Your task to perform on an android device: delete a single message in the gmail app Image 0: 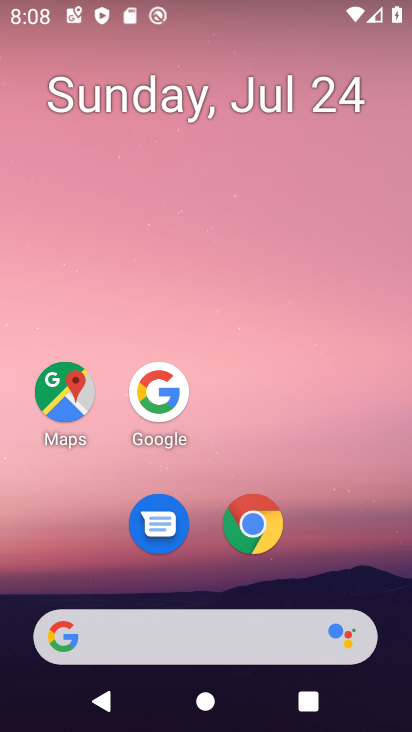
Step 0: press home button
Your task to perform on an android device: delete a single message in the gmail app Image 1: 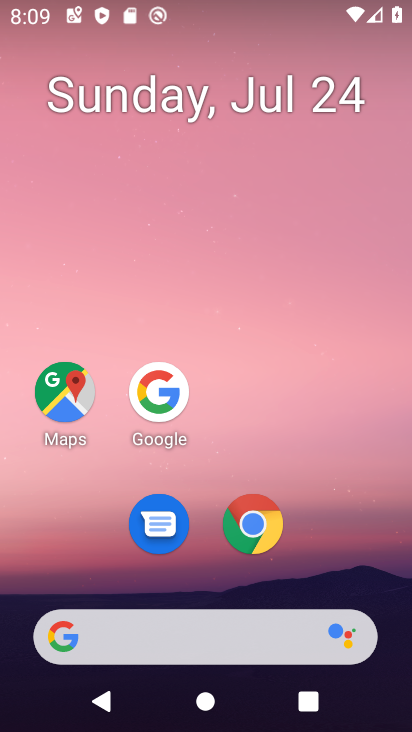
Step 1: drag from (161, 652) to (335, 121)
Your task to perform on an android device: delete a single message in the gmail app Image 2: 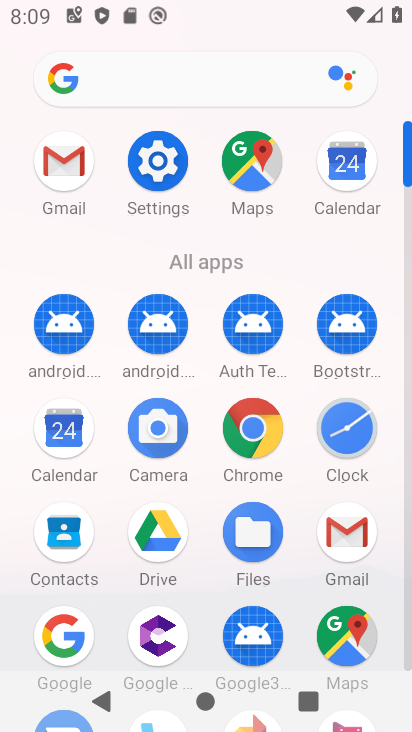
Step 2: click (74, 162)
Your task to perform on an android device: delete a single message in the gmail app Image 3: 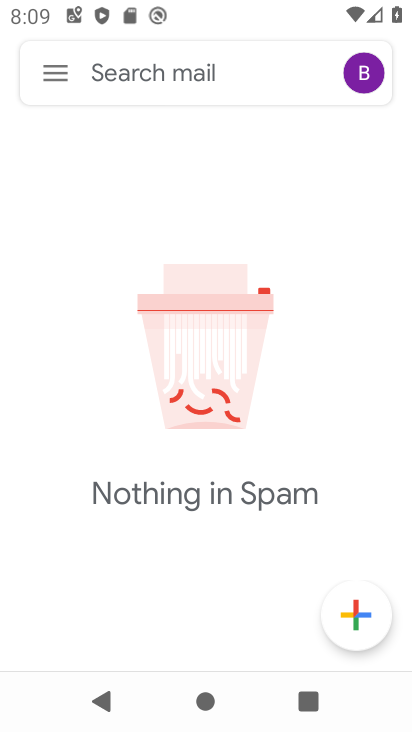
Step 3: click (67, 71)
Your task to perform on an android device: delete a single message in the gmail app Image 4: 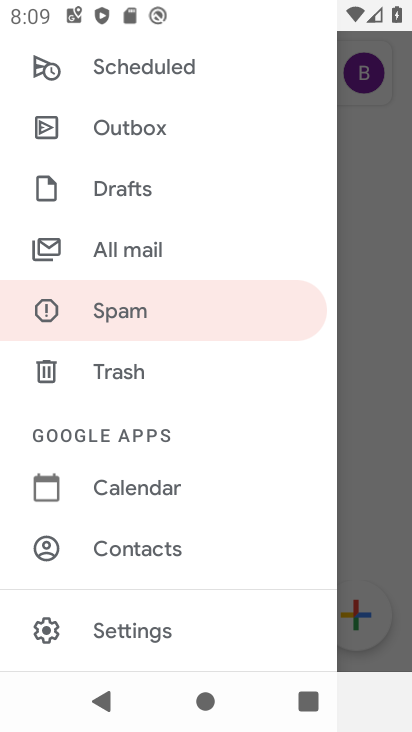
Step 4: click (134, 241)
Your task to perform on an android device: delete a single message in the gmail app Image 5: 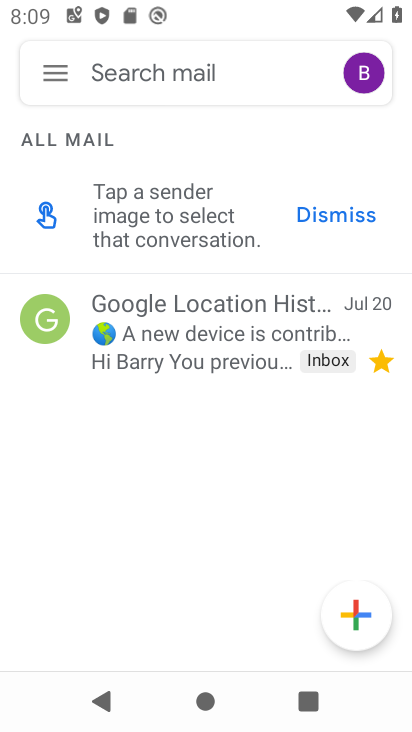
Step 5: click (54, 320)
Your task to perform on an android device: delete a single message in the gmail app Image 6: 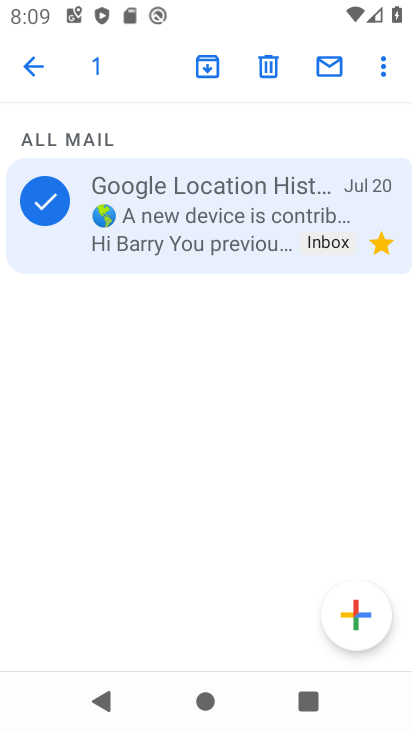
Step 6: click (261, 64)
Your task to perform on an android device: delete a single message in the gmail app Image 7: 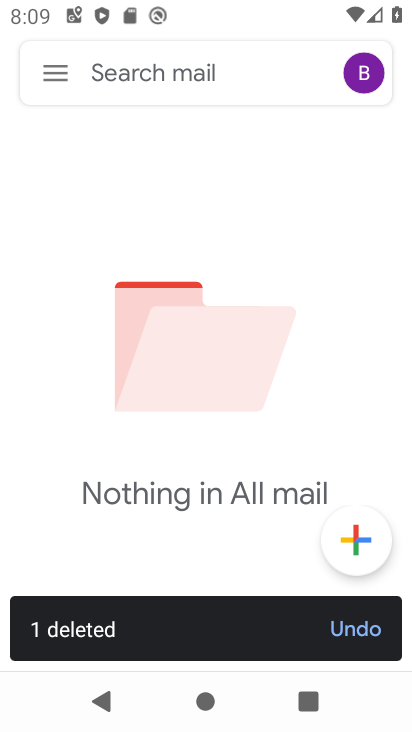
Step 7: task complete